Your task to perform on an android device: Go to CNN.com Image 0: 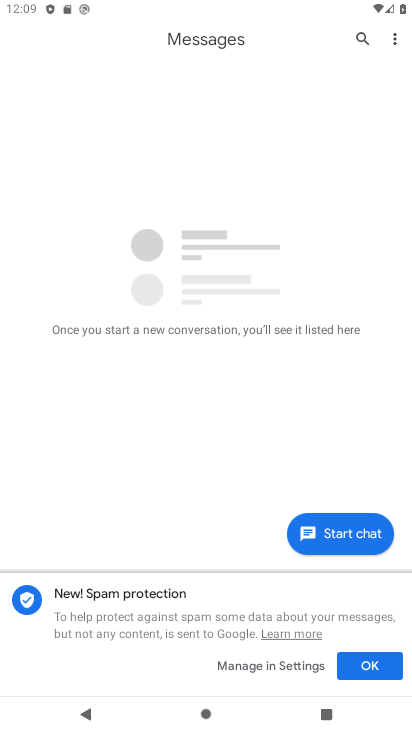
Step 0: task complete